Your task to perform on an android device: Go to wifi settings Image 0: 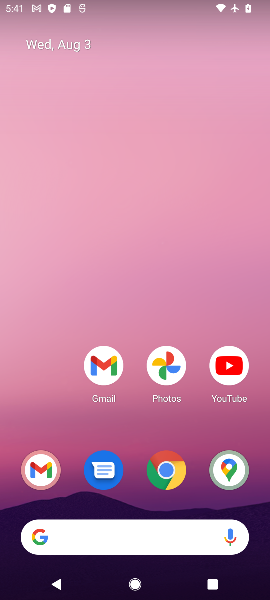
Step 0: drag from (57, 407) to (113, 69)
Your task to perform on an android device: Go to wifi settings Image 1: 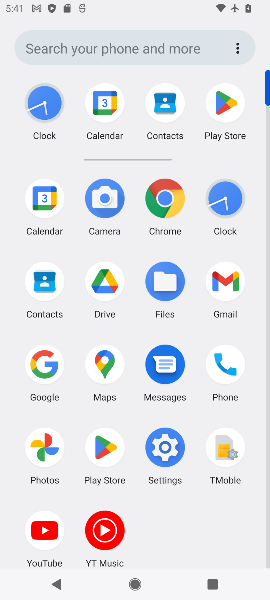
Step 1: click (179, 436)
Your task to perform on an android device: Go to wifi settings Image 2: 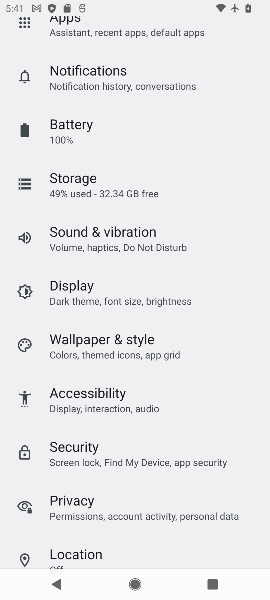
Step 2: drag from (177, 58) to (129, 355)
Your task to perform on an android device: Go to wifi settings Image 3: 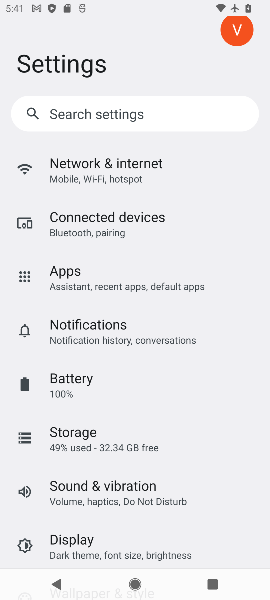
Step 3: click (119, 167)
Your task to perform on an android device: Go to wifi settings Image 4: 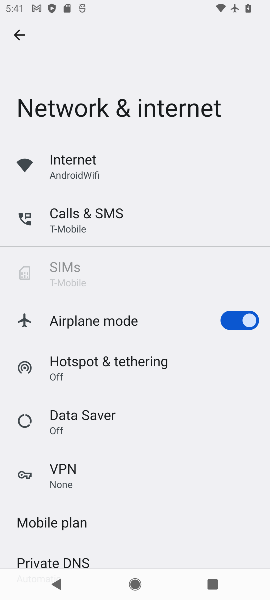
Step 4: click (102, 163)
Your task to perform on an android device: Go to wifi settings Image 5: 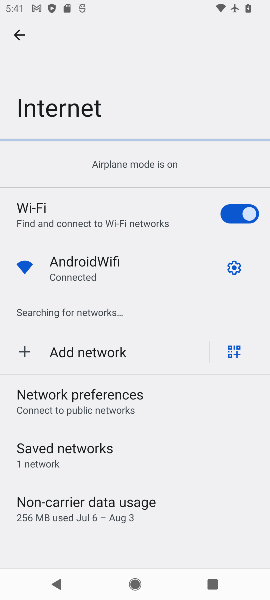
Step 5: click (233, 269)
Your task to perform on an android device: Go to wifi settings Image 6: 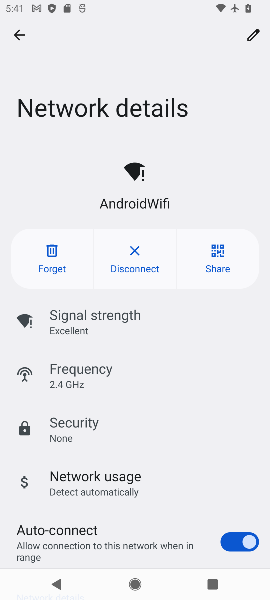
Step 6: task complete